Your task to perform on an android device: clear history in the chrome app Image 0: 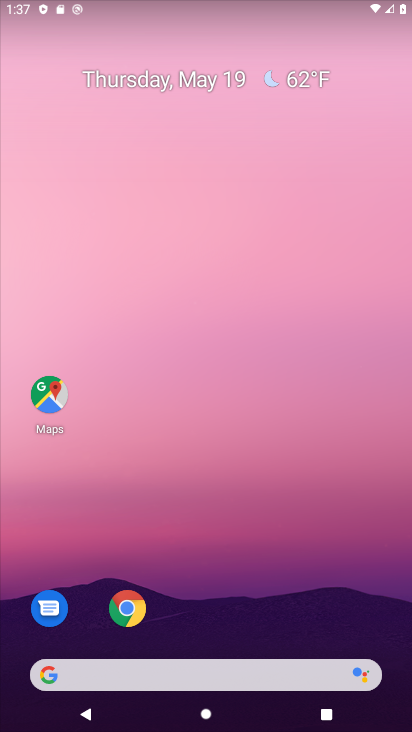
Step 0: drag from (248, 624) to (240, 183)
Your task to perform on an android device: clear history in the chrome app Image 1: 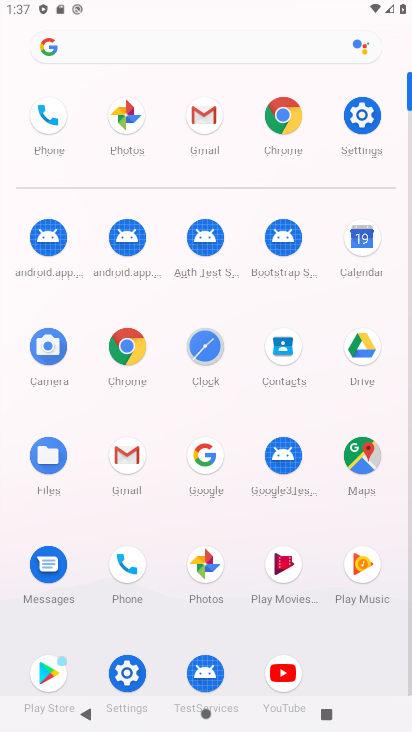
Step 1: click (123, 337)
Your task to perform on an android device: clear history in the chrome app Image 2: 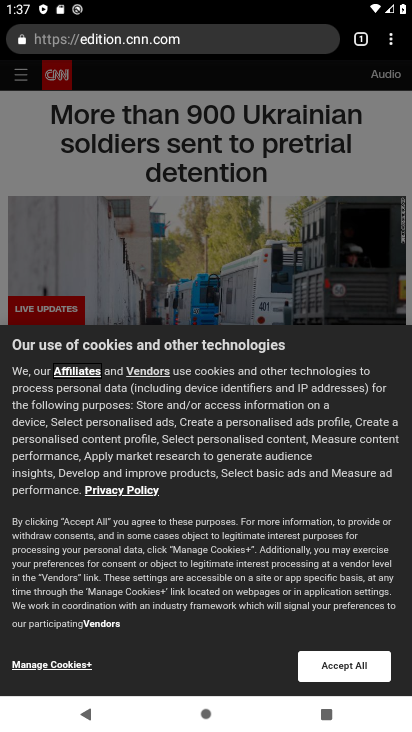
Step 2: click (402, 40)
Your task to perform on an android device: clear history in the chrome app Image 3: 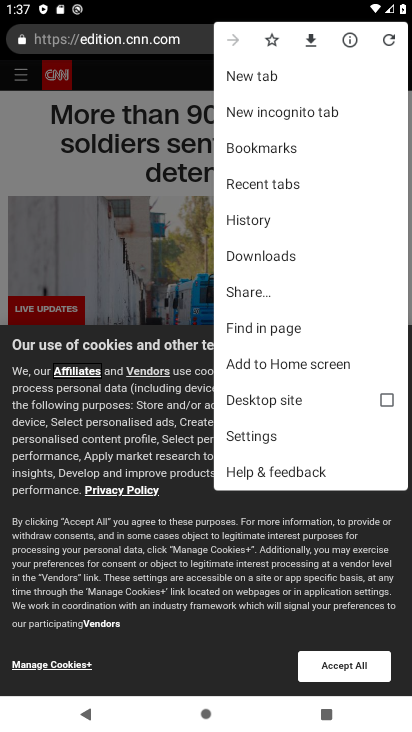
Step 3: click (279, 209)
Your task to perform on an android device: clear history in the chrome app Image 4: 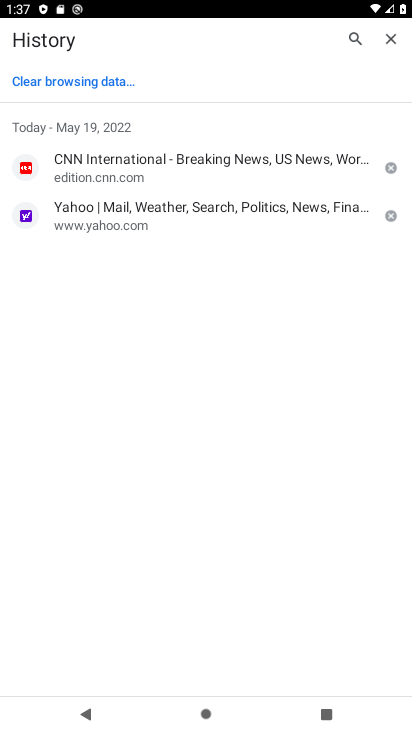
Step 4: click (107, 84)
Your task to perform on an android device: clear history in the chrome app Image 5: 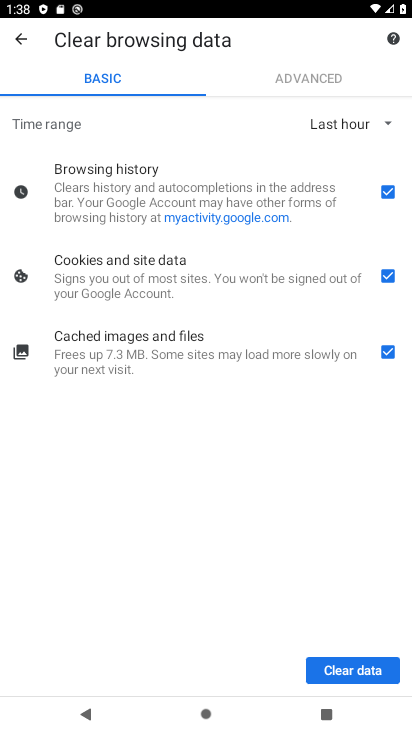
Step 5: click (338, 671)
Your task to perform on an android device: clear history in the chrome app Image 6: 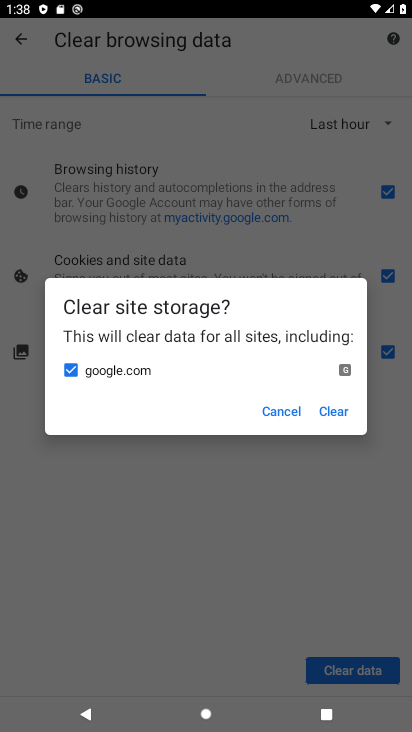
Step 6: click (318, 396)
Your task to perform on an android device: clear history in the chrome app Image 7: 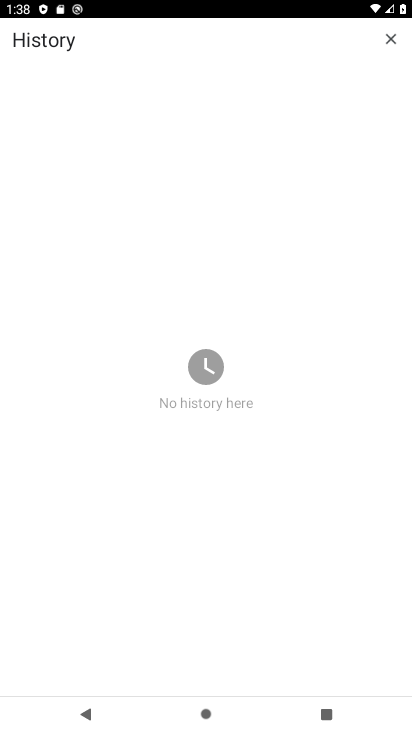
Step 7: task complete